Your task to perform on an android device: stop showing notifications on the lock screen Image 0: 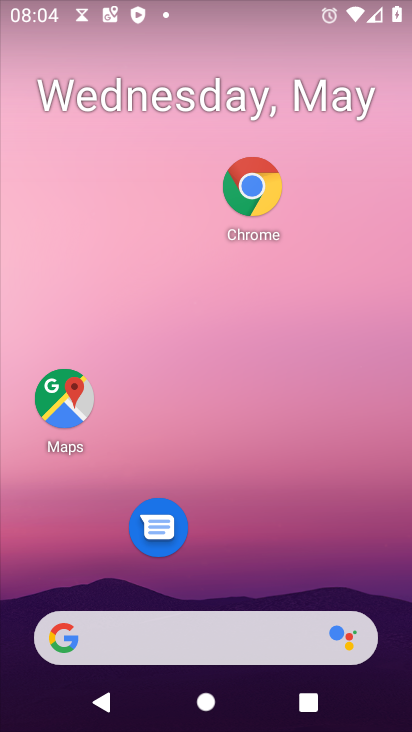
Step 0: drag from (306, 519) to (373, 113)
Your task to perform on an android device: stop showing notifications on the lock screen Image 1: 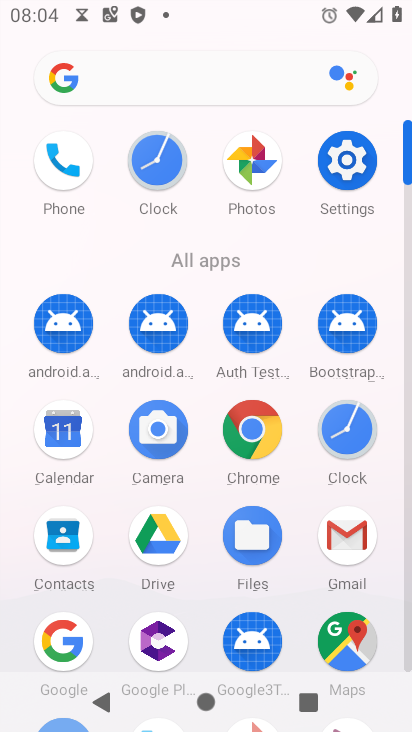
Step 1: click (337, 174)
Your task to perform on an android device: stop showing notifications on the lock screen Image 2: 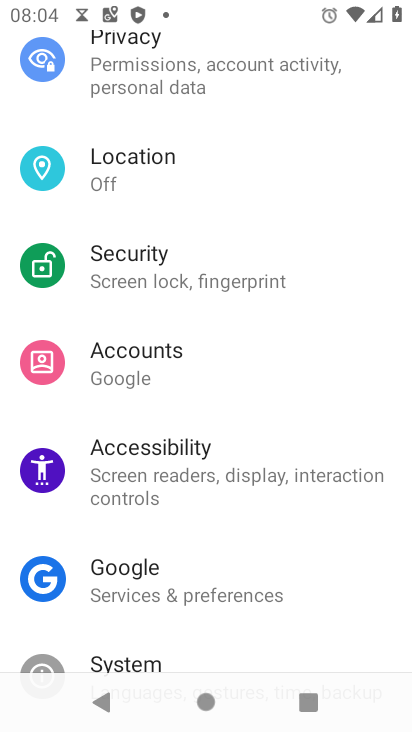
Step 2: drag from (205, 103) to (173, 602)
Your task to perform on an android device: stop showing notifications on the lock screen Image 3: 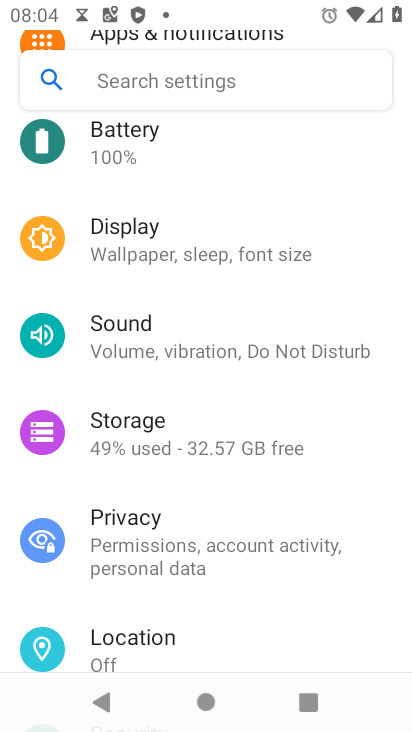
Step 3: drag from (278, 149) to (235, 557)
Your task to perform on an android device: stop showing notifications on the lock screen Image 4: 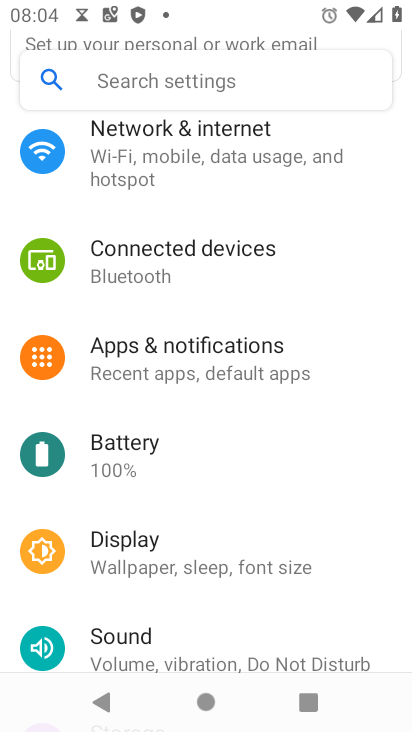
Step 4: click (174, 356)
Your task to perform on an android device: stop showing notifications on the lock screen Image 5: 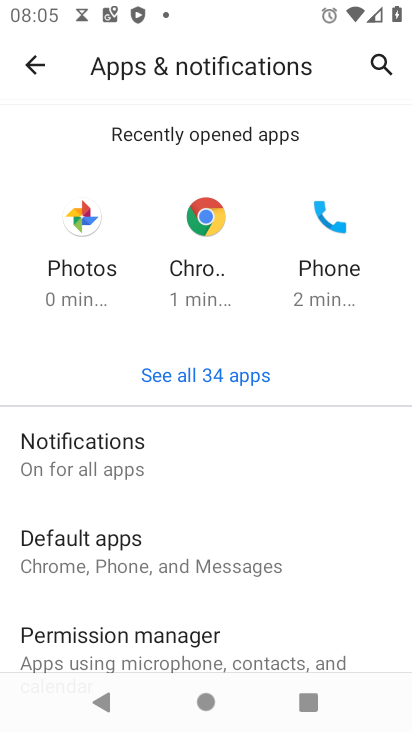
Step 5: click (88, 452)
Your task to perform on an android device: stop showing notifications on the lock screen Image 6: 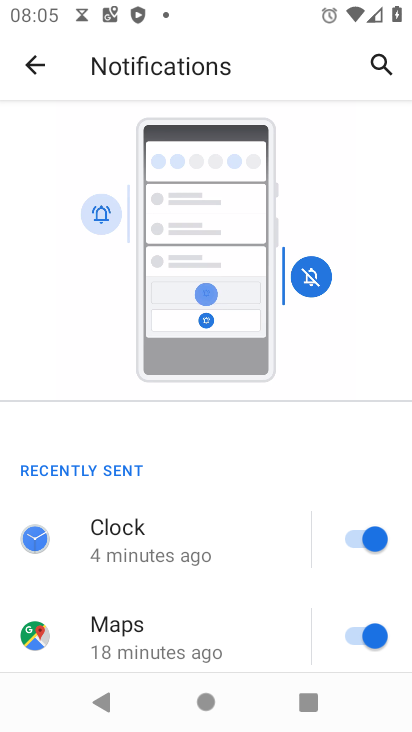
Step 6: drag from (237, 632) to (317, 232)
Your task to perform on an android device: stop showing notifications on the lock screen Image 7: 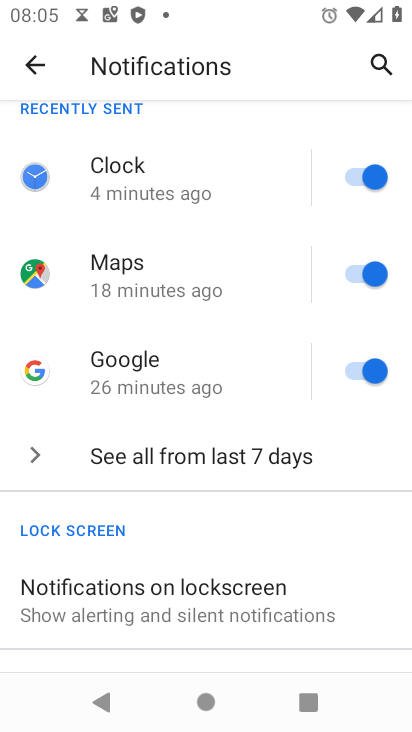
Step 7: click (205, 599)
Your task to perform on an android device: stop showing notifications on the lock screen Image 8: 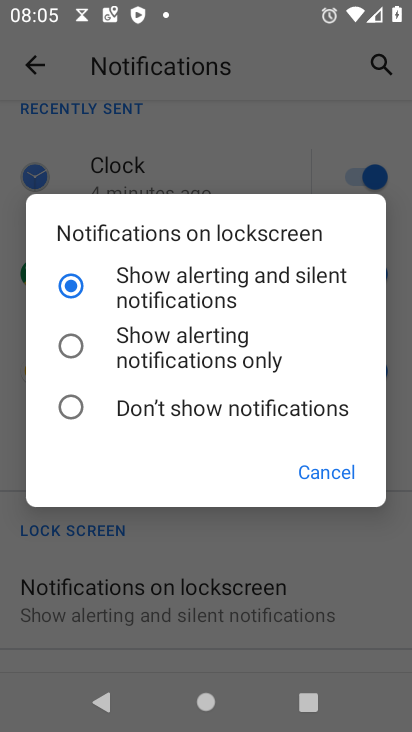
Step 8: click (132, 409)
Your task to perform on an android device: stop showing notifications on the lock screen Image 9: 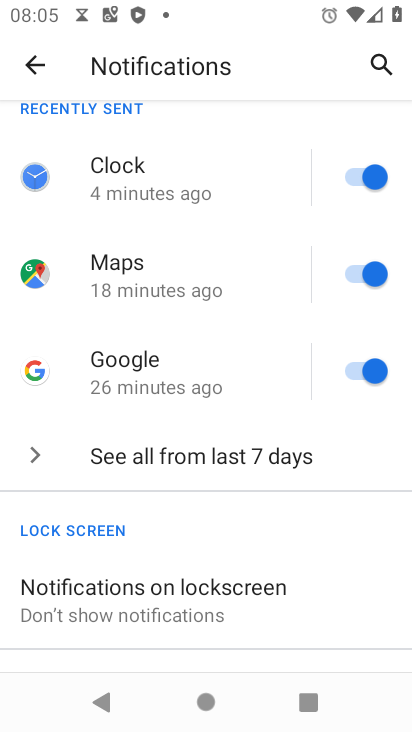
Step 9: task complete